Your task to perform on an android device: Go to Reddit.com Image 0: 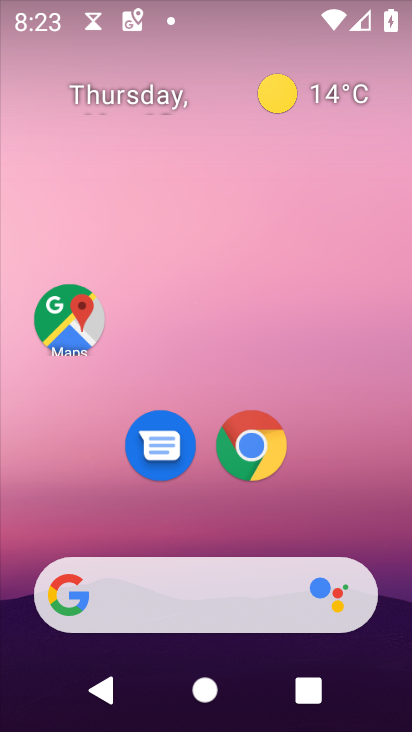
Step 0: click (246, 439)
Your task to perform on an android device: Go to Reddit.com Image 1: 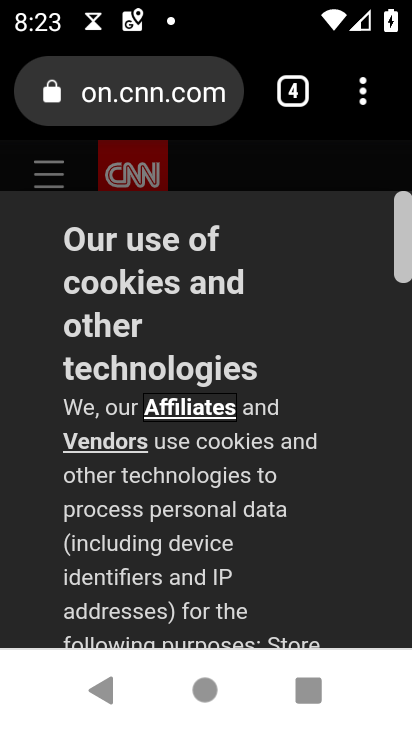
Step 1: click (364, 101)
Your task to perform on an android device: Go to Reddit.com Image 2: 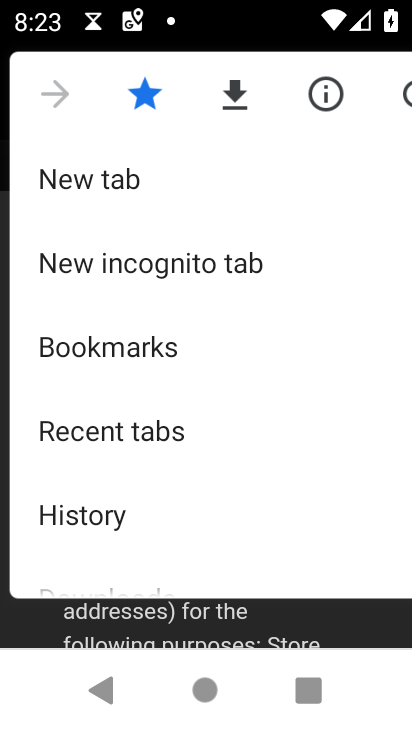
Step 2: click (119, 180)
Your task to perform on an android device: Go to Reddit.com Image 3: 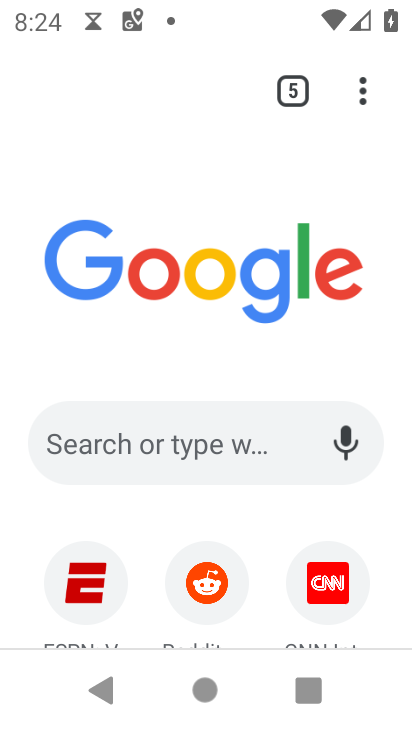
Step 3: click (205, 442)
Your task to perform on an android device: Go to Reddit.com Image 4: 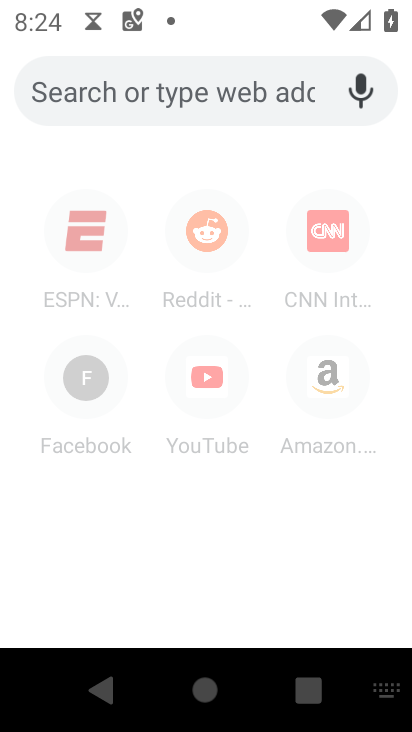
Step 4: type "Reddit.com"
Your task to perform on an android device: Go to Reddit.com Image 5: 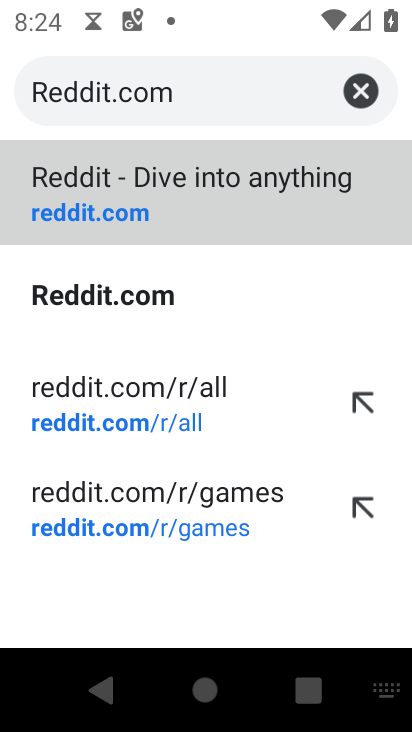
Step 5: click (114, 190)
Your task to perform on an android device: Go to Reddit.com Image 6: 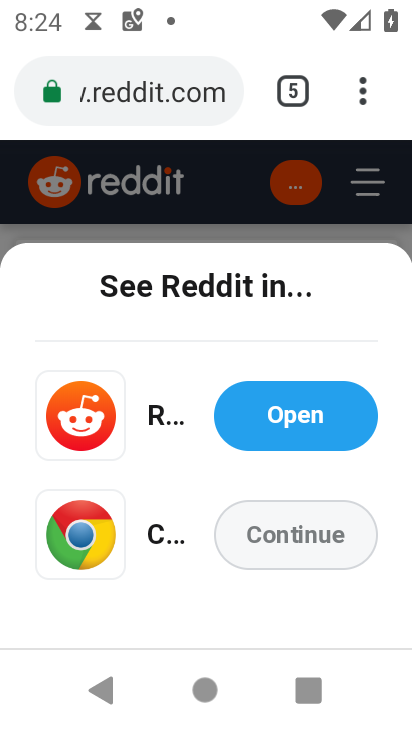
Step 6: task complete